Your task to perform on an android device: Search for sushi restaurants on Maps Image 0: 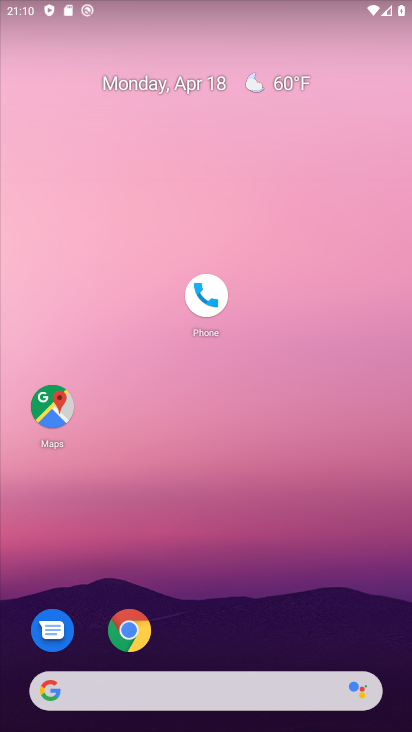
Step 0: drag from (249, 585) to (279, 98)
Your task to perform on an android device: Search for sushi restaurants on Maps Image 1: 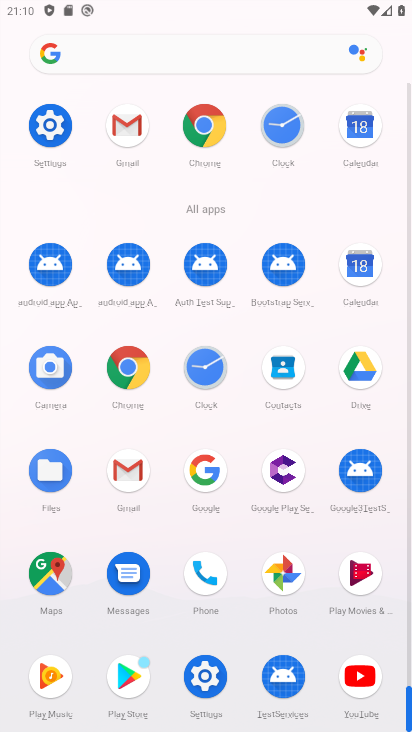
Step 1: click (37, 566)
Your task to perform on an android device: Search for sushi restaurants on Maps Image 2: 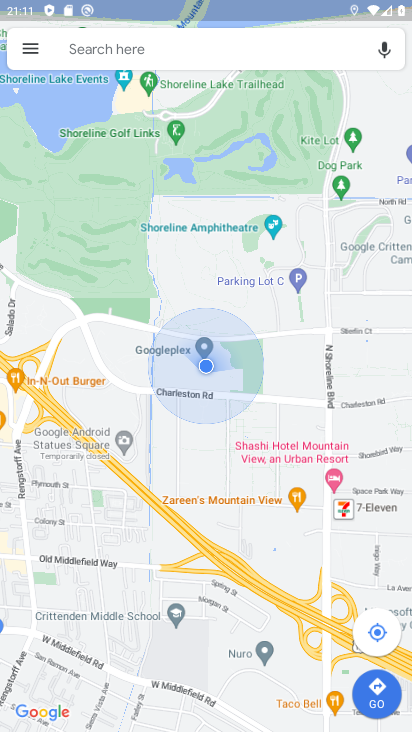
Step 2: click (245, 50)
Your task to perform on an android device: Search for sushi restaurants on Maps Image 3: 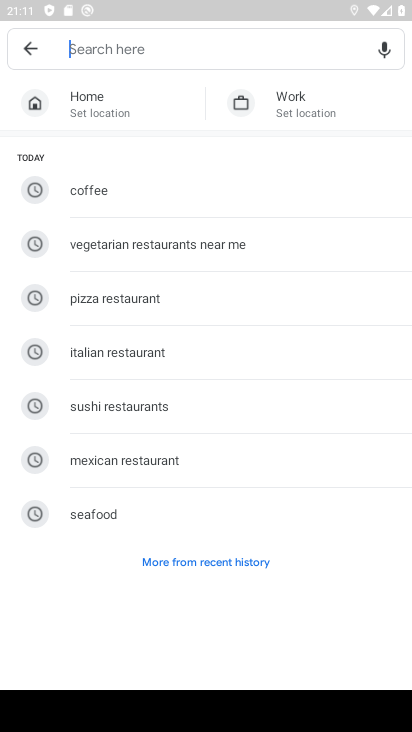
Step 3: click (147, 407)
Your task to perform on an android device: Search for sushi restaurants on Maps Image 4: 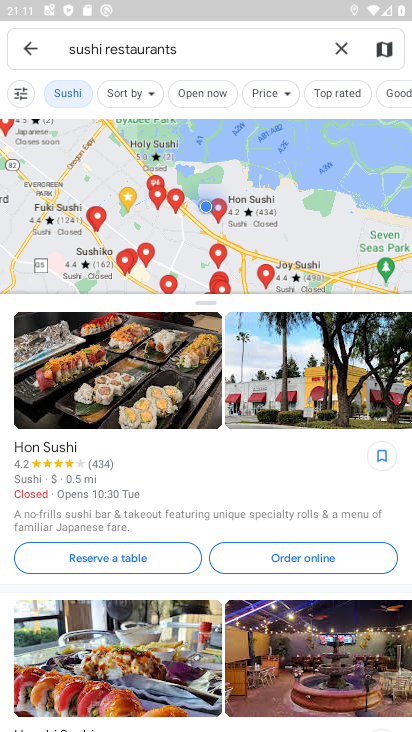
Step 4: task complete